Your task to perform on an android device: Open notification settings Image 0: 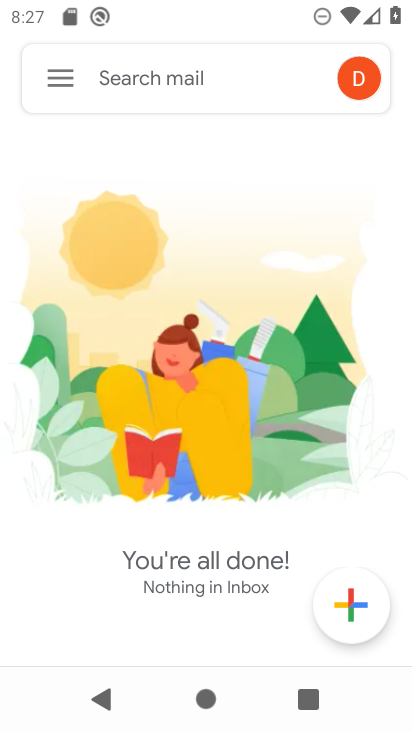
Step 0: press home button
Your task to perform on an android device: Open notification settings Image 1: 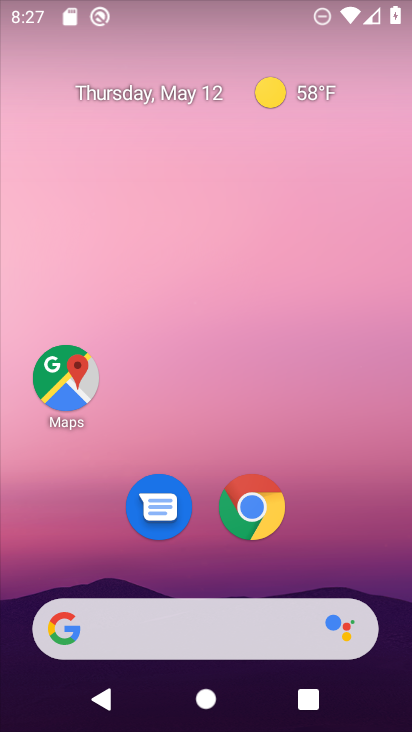
Step 1: drag from (217, 565) to (229, 266)
Your task to perform on an android device: Open notification settings Image 2: 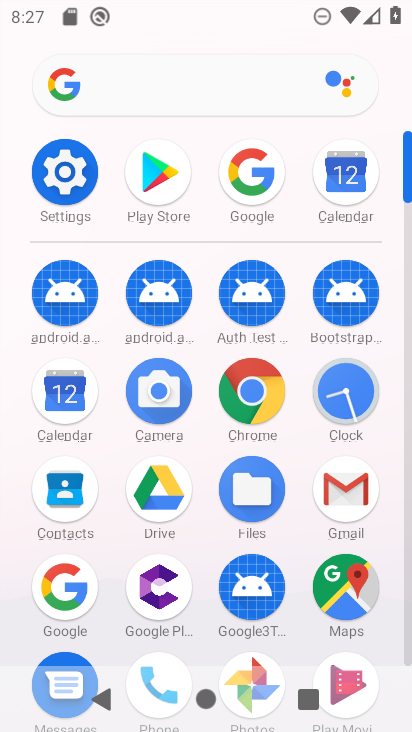
Step 2: click (70, 155)
Your task to perform on an android device: Open notification settings Image 3: 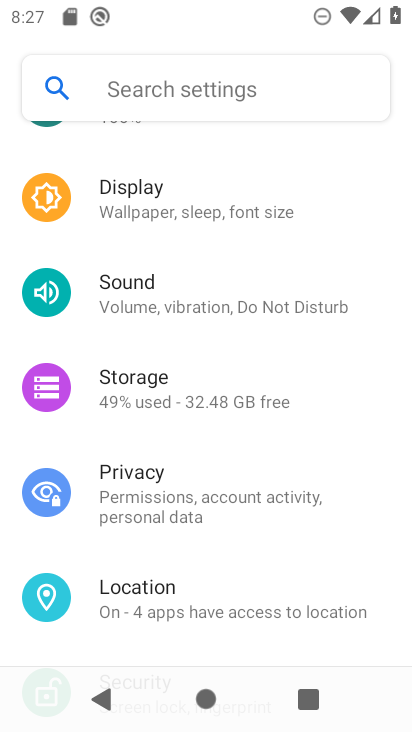
Step 3: drag from (173, 278) to (198, 525)
Your task to perform on an android device: Open notification settings Image 4: 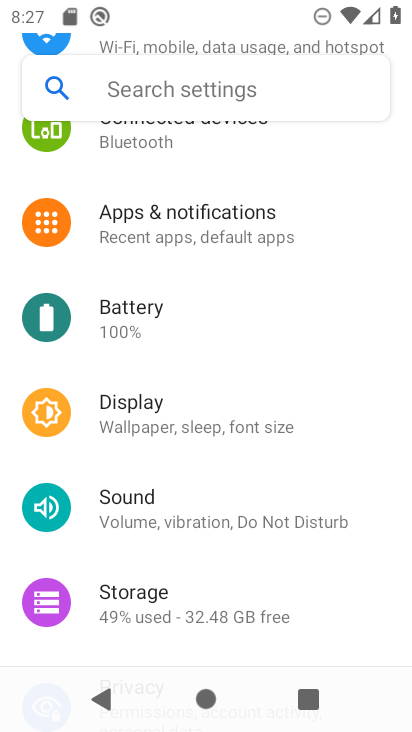
Step 4: click (199, 200)
Your task to perform on an android device: Open notification settings Image 5: 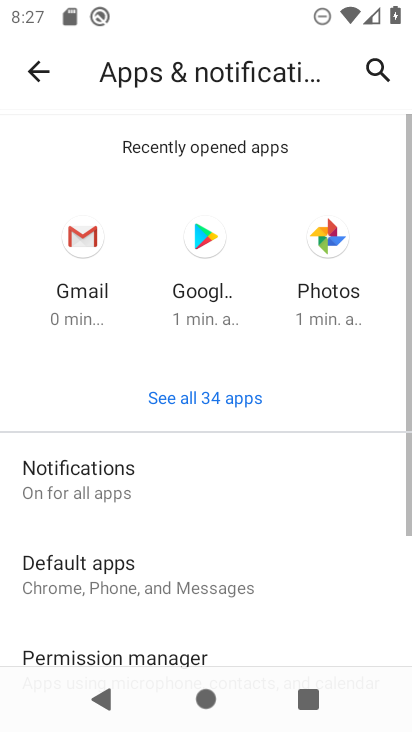
Step 5: click (103, 479)
Your task to perform on an android device: Open notification settings Image 6: 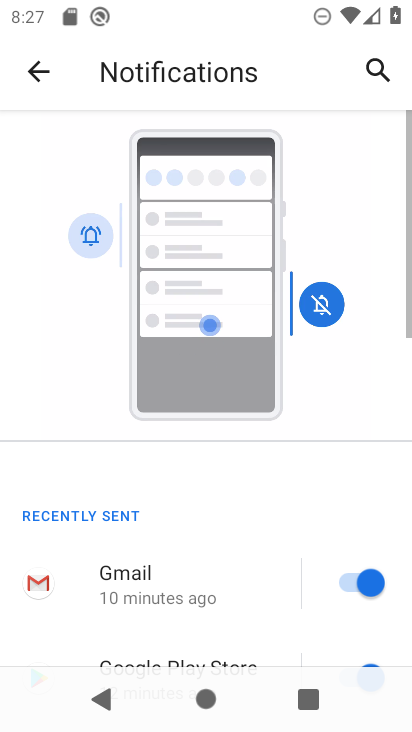
Step 6: task complete